Your task to perform on an android device: turn vacation reply on in the gmail app Image 0: 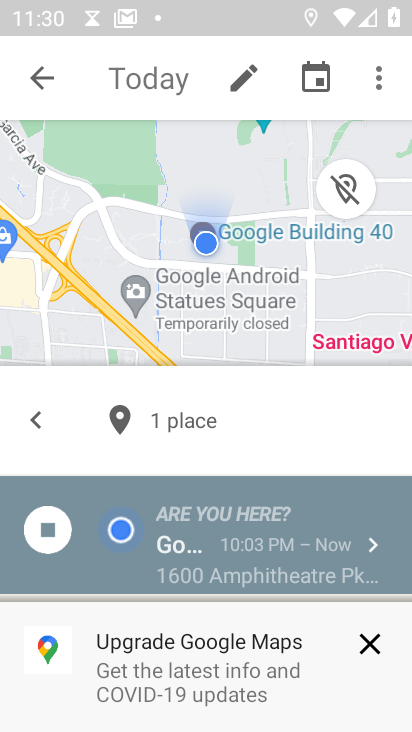
Step 0: press home button
Your task to perform on an android device: turn vacation reply on in the gmail app Image 1: 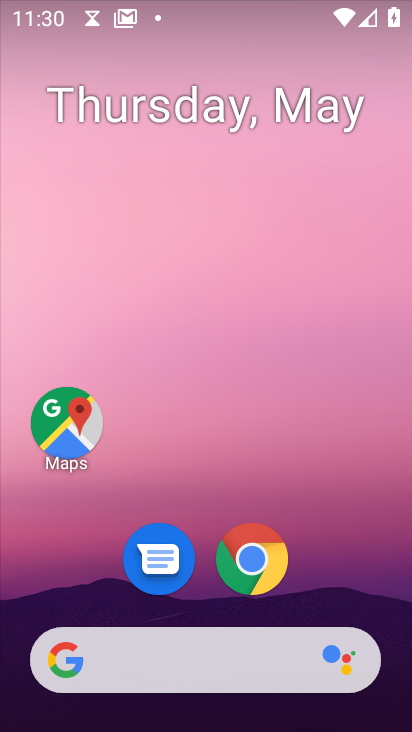
Step 1: drag from (212, 722) to (184, 177)
Your task to perform on an android device: turn vacation reply on in the gmail app Image 2: 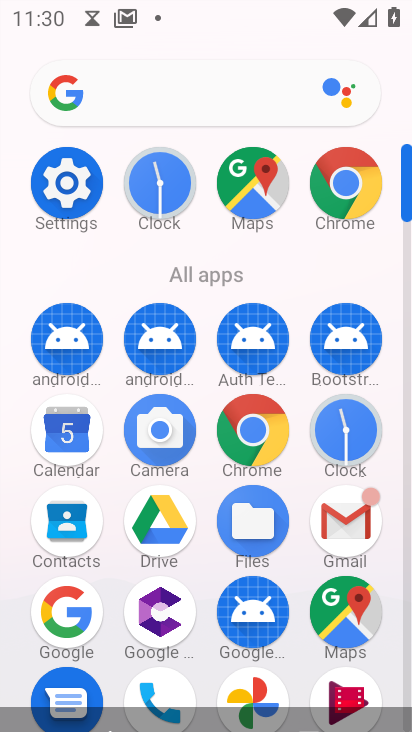
Step 2: click (357, 521)
Your task to perform on an android device: turn vacation reply on in the gmail app Image 3: 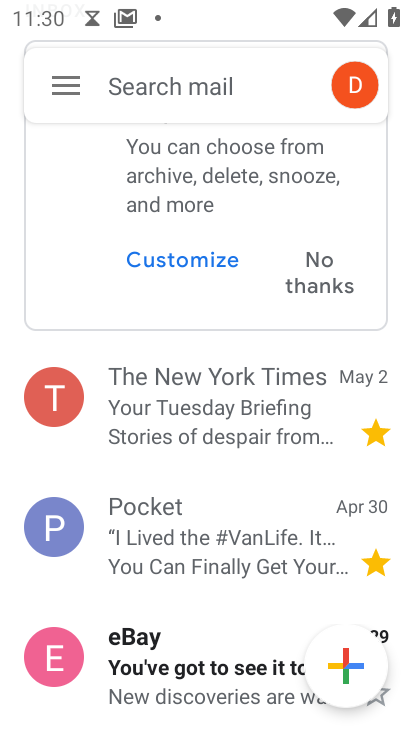
Step 3: click (62, 84)
Your task to perform on an android device: turn vacation reply on in the gmail app Image 4: 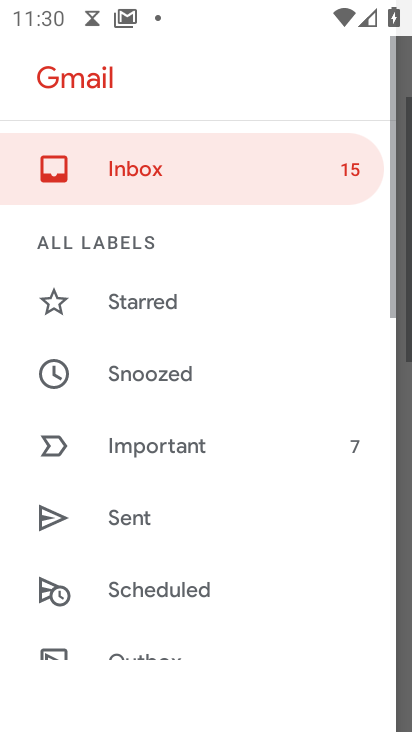
Step 4: drag from (189, 647) to (163, 144)
Your task to perform on an android device: turn vacation reply on in the gmail app Image 5: 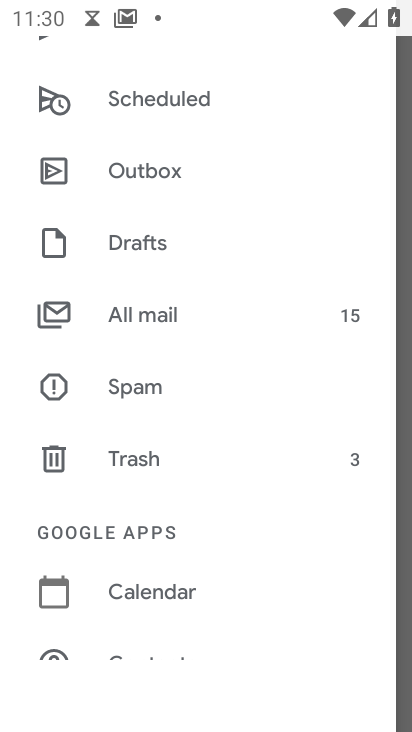
Step 5: drag from (179, 637) to (174, 207)
Your task to perform on an android device: turn vacation reply on in the gmail app Image 6: 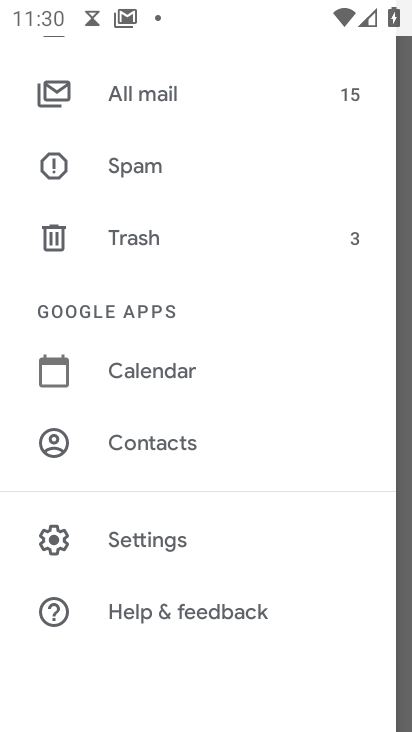
Step 6: click (159, 541)
Your task to perform on an android device: turn vacation reply on in the gmail app Image 7: 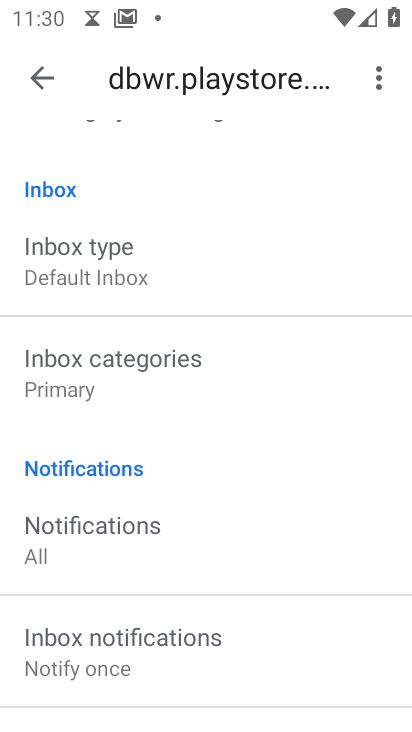
Step 7: drag from (176, 689) to (175, 311)
Your task to perform on an android device: turn vacation reply on in the gmail app Image 8: 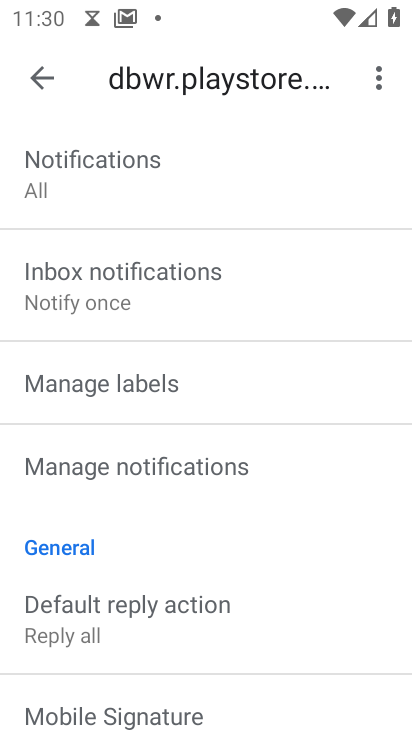
Step 8: drag from (181, 676) to (179, 332)
Your task to perform on an android device: turn vacation reply on in the gmail app Image 9: 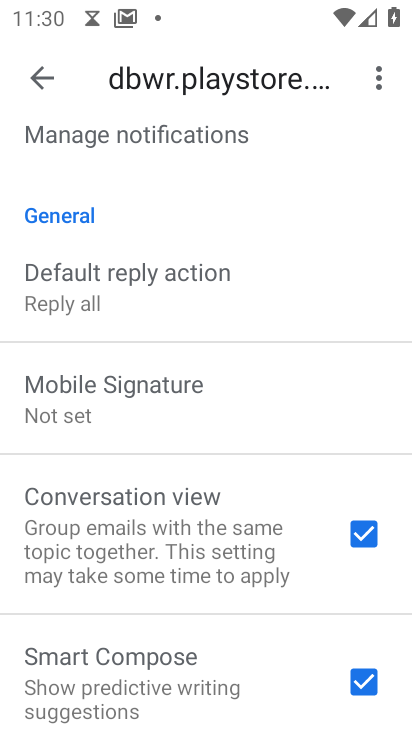
Step 9: drag from (193, 694) to (176, 311)
Your task to perform on an android device: turn vacation reply on in the gmail app Image 10: 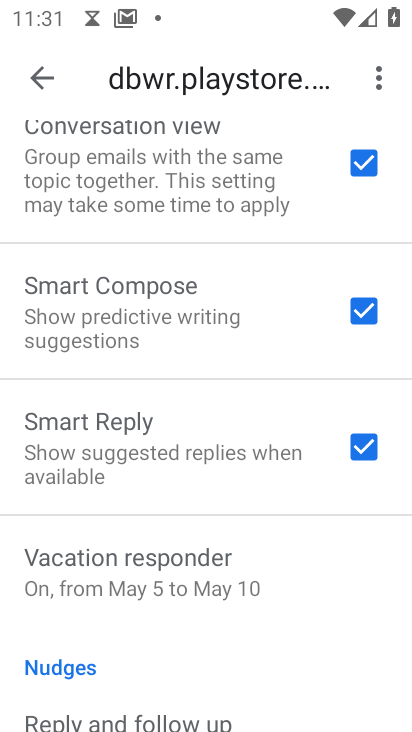
Step 10: drag from (198, 689) to (199, 389)
Your task to perform on an android device: turn vacation reply on in the gmail app Image 11: 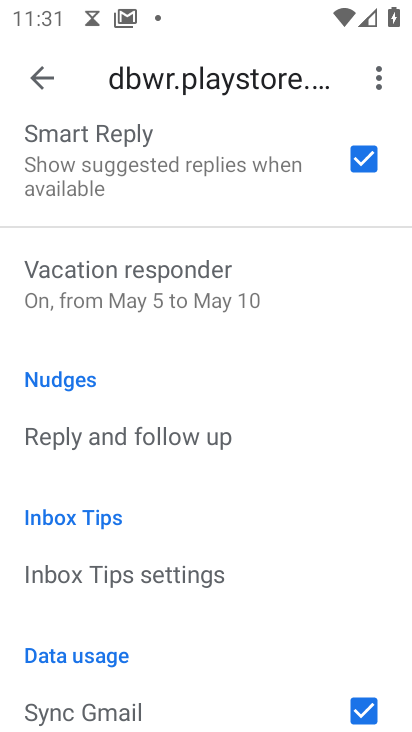
Step 11: drag from (198, 193) to (217, 361)
Your task to perform on an android device: turn vacation reply on in the gmail app Image 12: 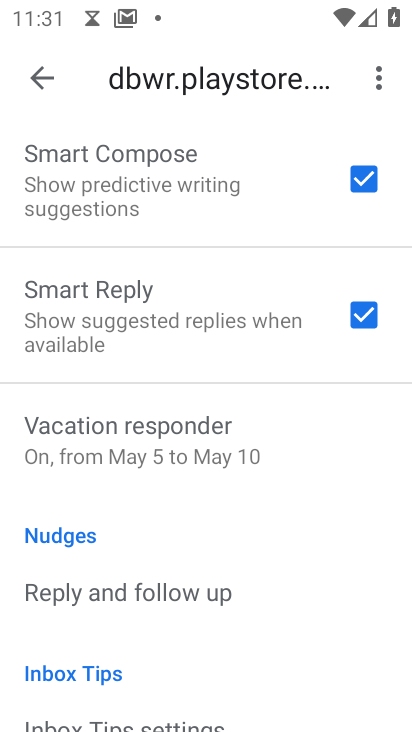
Step 12: click (154, 433)
Your task to perform on an android device: turn vacation reply on in the gmail app Image 13: 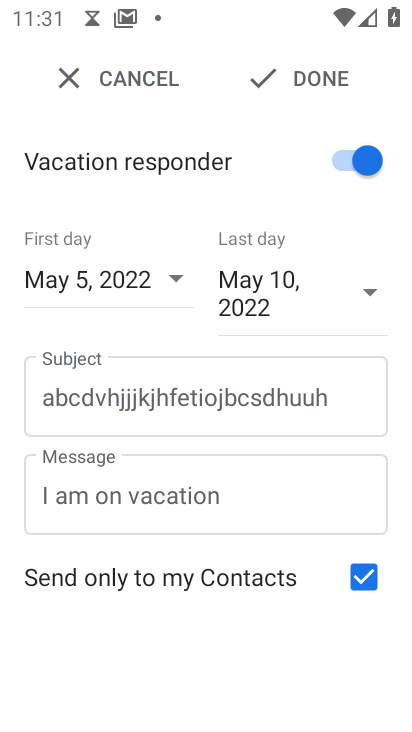
Step 13: task complete